Your task to perform on an android device: toggle notification dots Image 0: 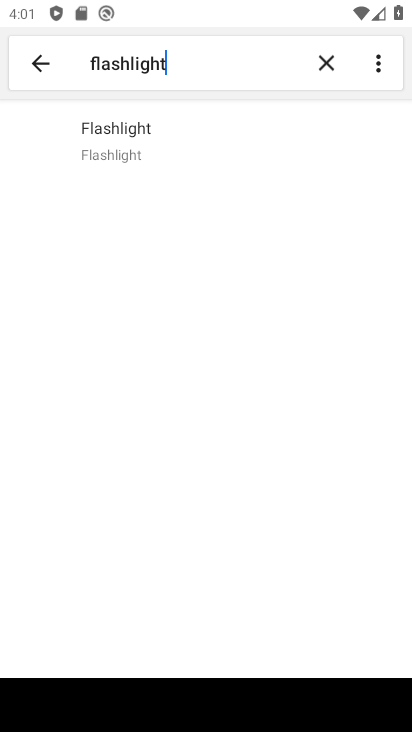
Step 0: press back button
Your task to perform on an android device: toggle notification dots Image 1: 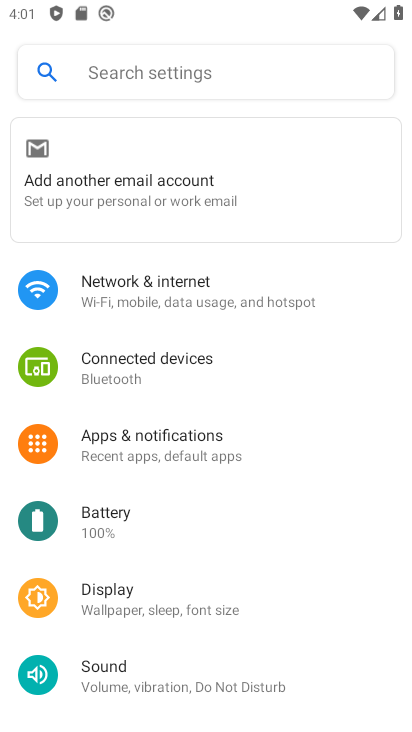
Step 1: click (172, 442)
Your task to perform on an android device: toggle notification dots Image 2: 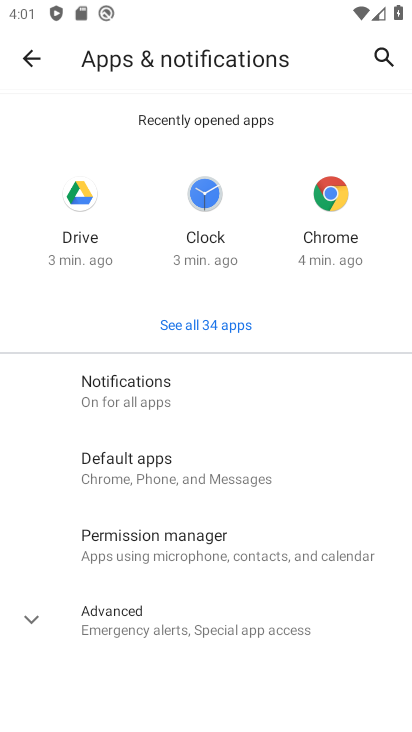
Step 2: click (160, 378)
Your task to perform on an android device: toggle notification dots Image 3: 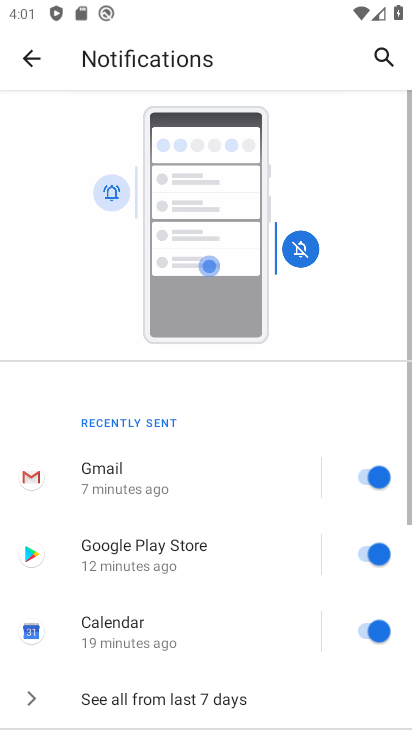
Step 3: drag from (183, 660) to (297, 70)
Your task to perform on an android device: toggle notification dots Image 4: 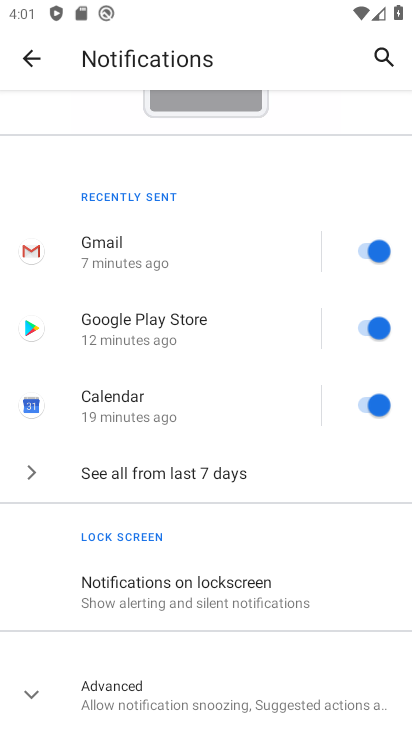
Step 4: click (176, 700)
Your task to perform on an android device: toggle notification dots Image 5: 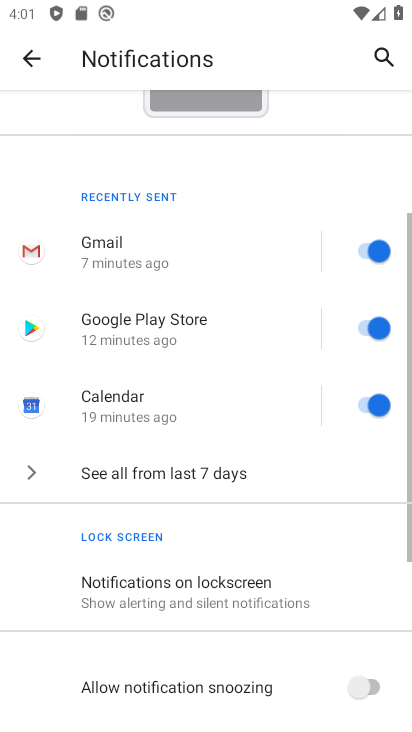
Step 5: drag from (176, 700) to (239, 291)
Your task to perform on an android device: toggle notification dots Image 6: 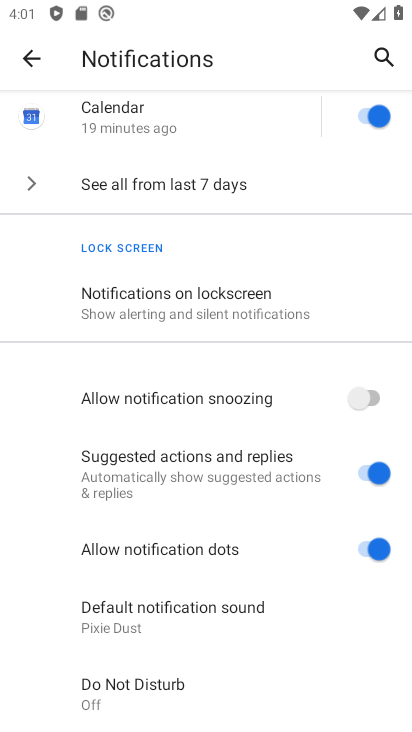
Step 6: click (380, 547)
Your task to perform on an android device: toggle notification dots Image 7: 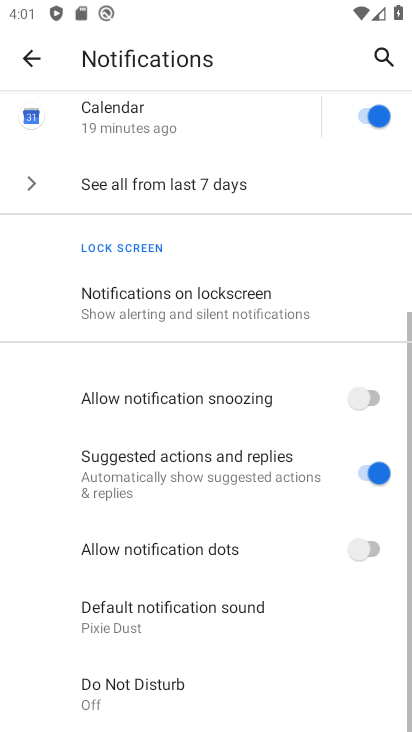
Step 7: task complete